Your task to perform on an android device: Search for vegetarian restaurants on Maps Image 0: 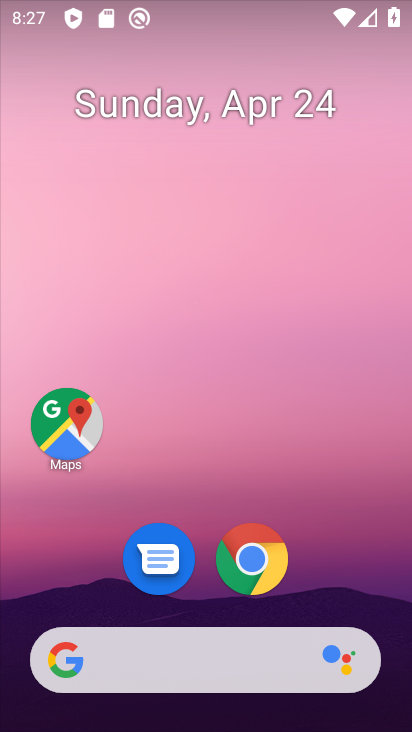
Step 0: click (70, 436)
Your task to perform on an android device: Search for vegetarian restaurants on Maps Image 1: 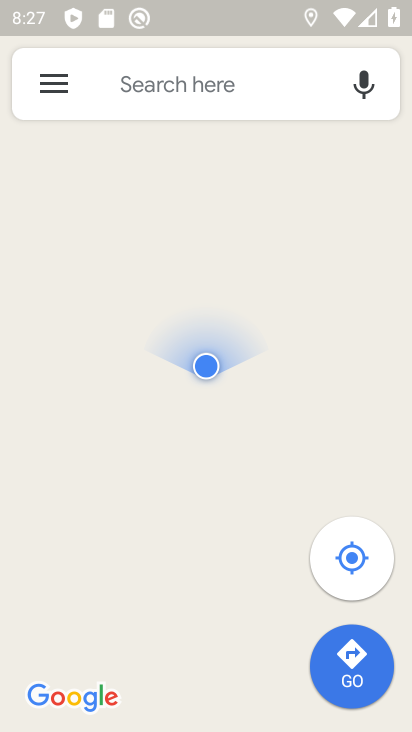
Step 1: click (210, 99)
Your task to perform on an android device: Search for vegetarian restaurants on Maps Image 2: 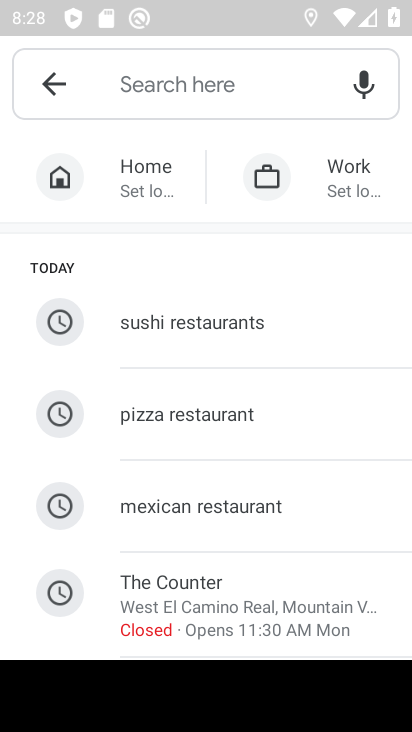
Step 2: click (197, 76)
Your task to perform on an android device: Search for vegetarian restaurants on Maps Image 3: 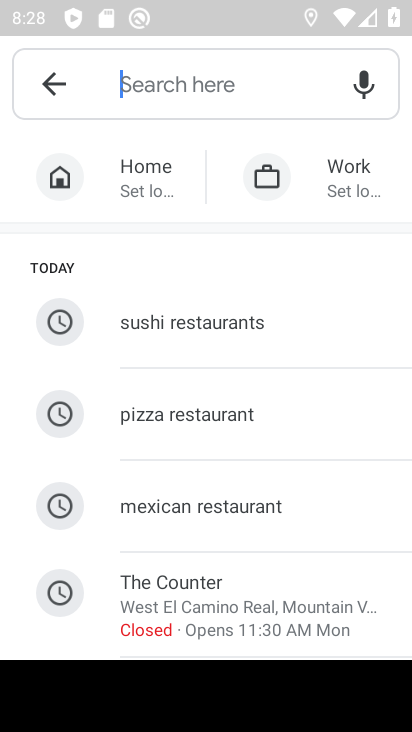
Step 3: type "vegetarian restaurants"
Your task to perform on an android device: Search for vegetarian restaurants on Maps Image 4: 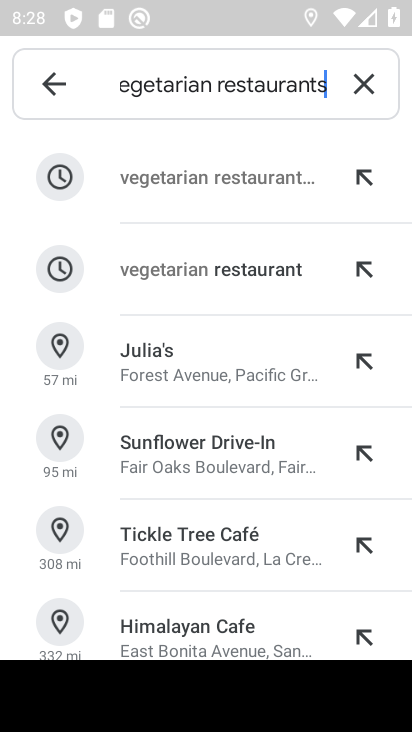
Step 4: click (263, 185)
Your task to perform on an android device: Search for vegetarian restaurants on Maps Image 5: 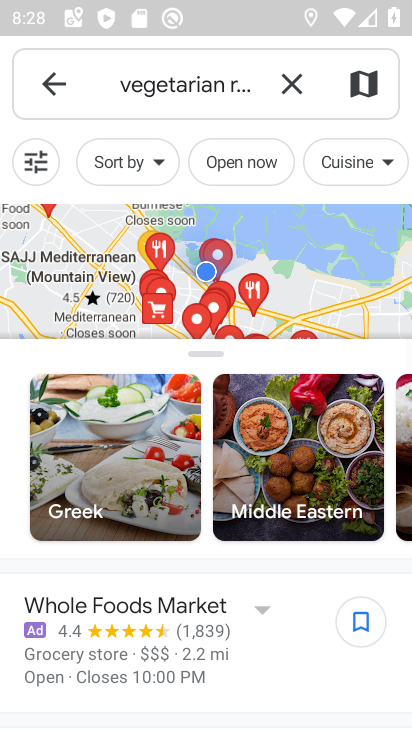
Step 5: task complete